Your task to perform on an android device: turn off data saver in the chrome app Image 0: 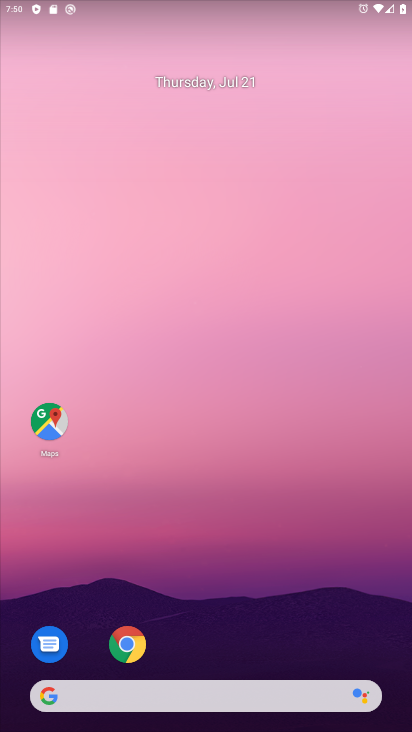
Step 0: drag from (357, 594) to (385, 120)
Your task to perform on an android device: turn off data saver in the chrome app Image 1: 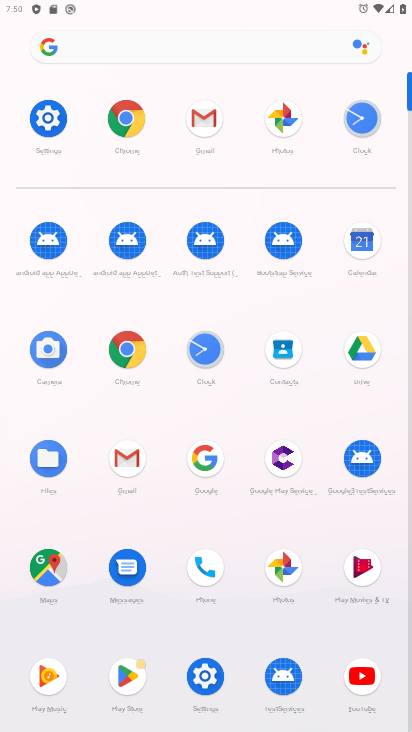
Step 1: click (130, 355)
Your task to perform on an android device: turn off data saver in the chrome app Image 2: 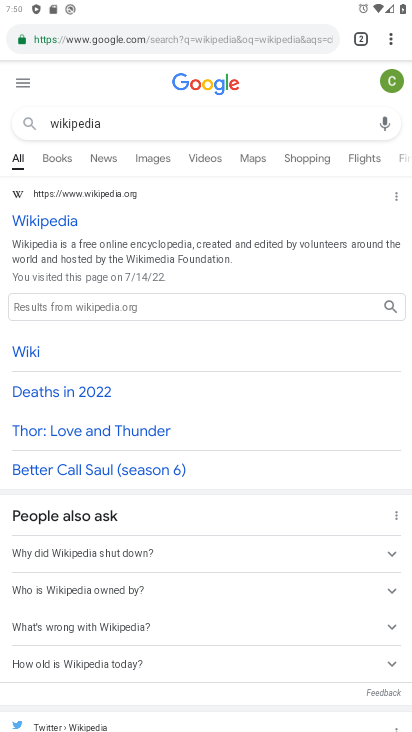
Step 2: click (392, 43)
Your task to perform on an android device: turn off data saver in the chrome app Image 3: 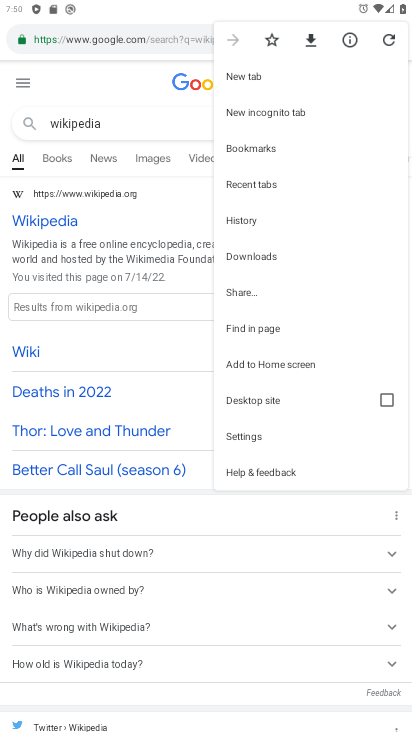
Step 3: click (271, 441)
Your task to perform on an android device: turn off data saver in the chrome app Image 4: 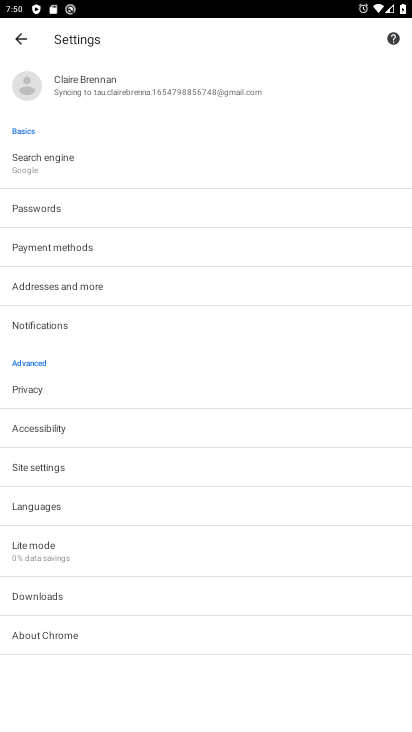
Step 4: drag from (266, 497) to (278, 375)
Your task to perform on an android device: turn off data saver in the chrome app Image 5: 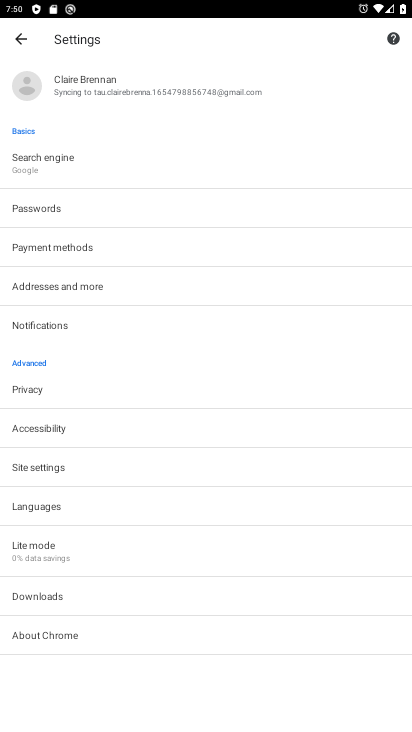
Step 5: click (270, 543)
Your task to perform on an android device: turn off data saver in the chrome app Image 6: 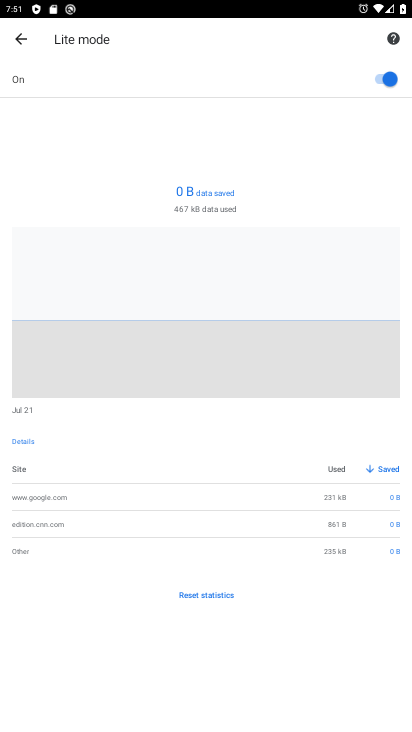
Step 6: click (387, 81)
Your task to perform on an android device: turn off data saver in the chrome app Image 7: 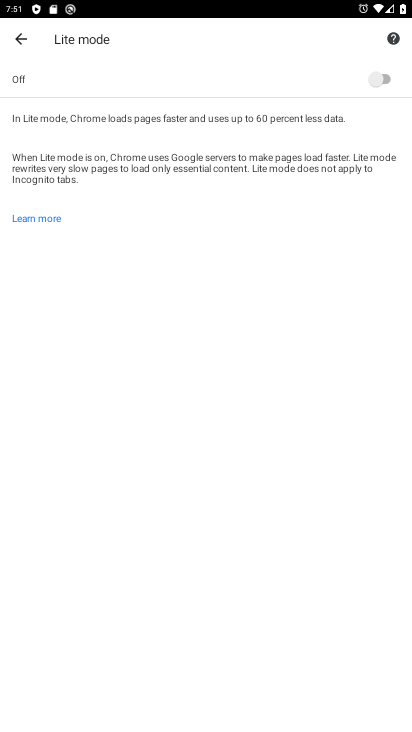
Step 7: task complete